Your task to perform on an android device: Check the news Image 0: 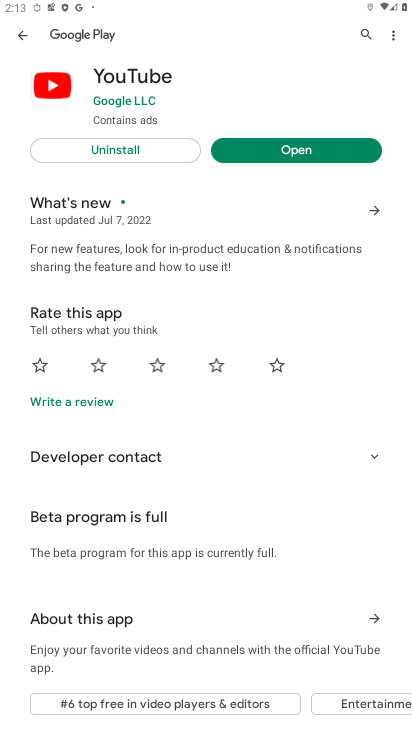
Step 0: press home button
Your task to perform on an android device: Check the news Image 1: 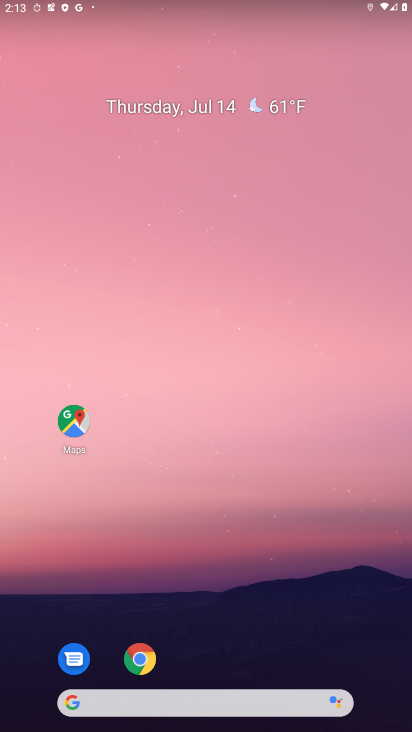
Step 1: click (224, 695)
Your task to perform on an android device: Check the news Image 2: 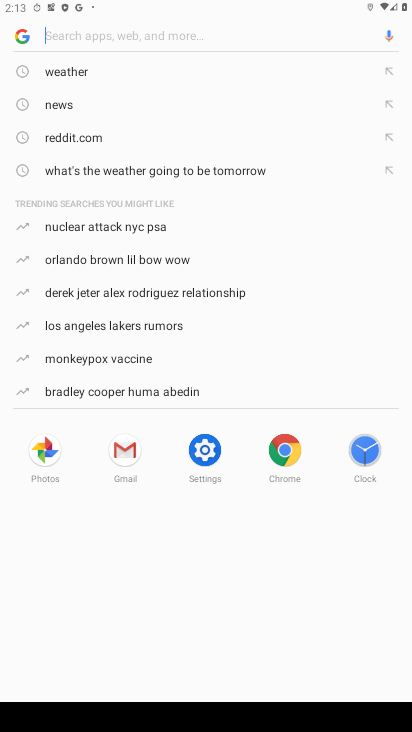
Step 2: click (52, 89)
Your task to perform on an android device: Check the news Image 3: 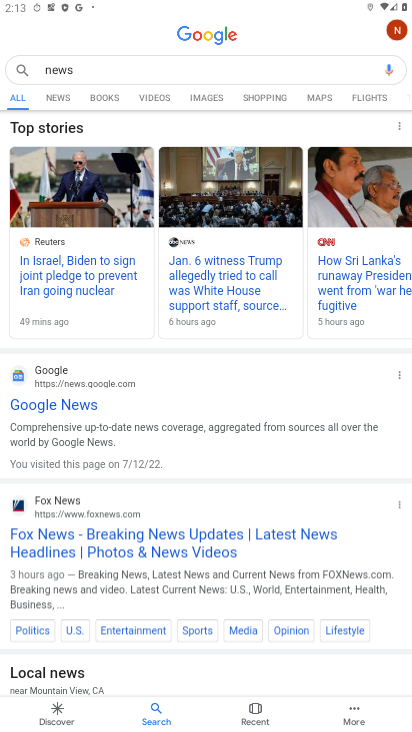
Step 3: click (50, 91)
Your task to perform on an android device: Check the news Image 4: 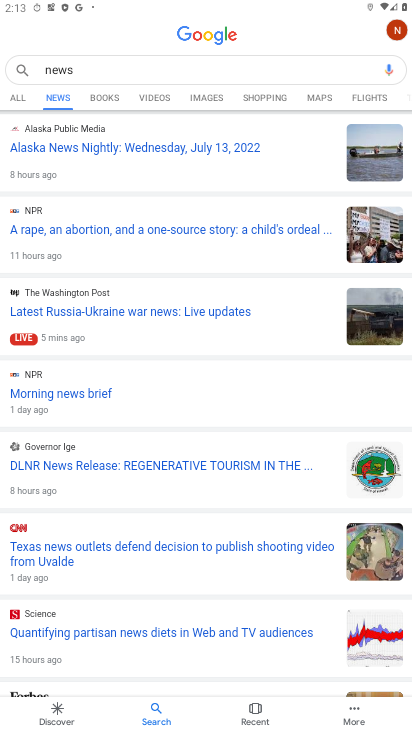
Step 4: task complete